Your task to perform on an android device: Open Google Chrome Image 0: 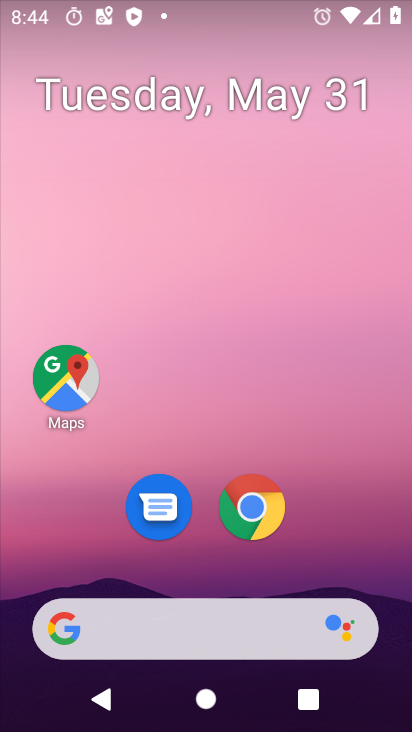
Step 0: click (292, 529)
Your task to perform on an android device: Open Google Chrome Image 1: 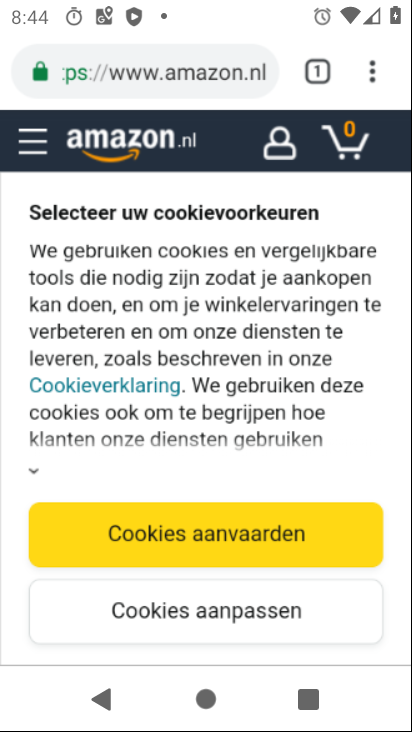
Step 1: click (255, 511)
Your task to perform on an android device: Open Google Chrome Image 2: 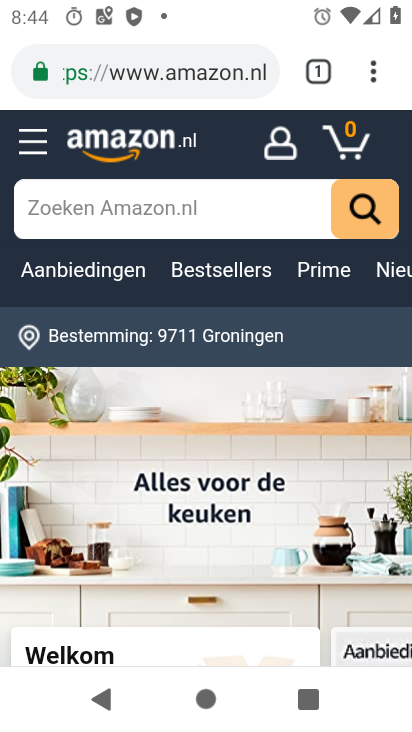
Step 2: task complete